Your task to perform on an android device: Open Reddit.com Image 0: 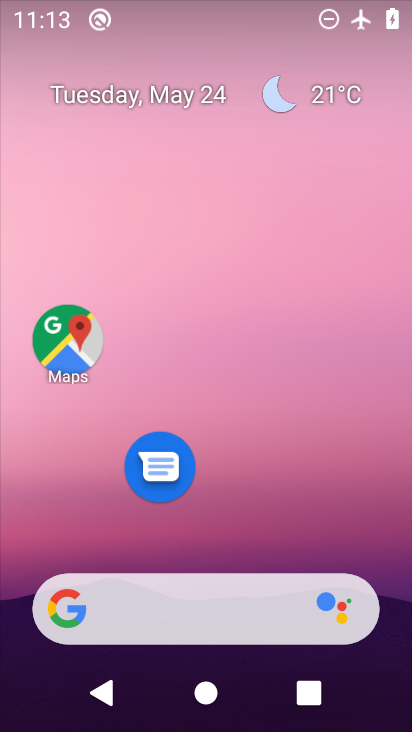
Step 0: click (305, 144)
Your task to perform on an android device: Open Reddit.com Image 1: 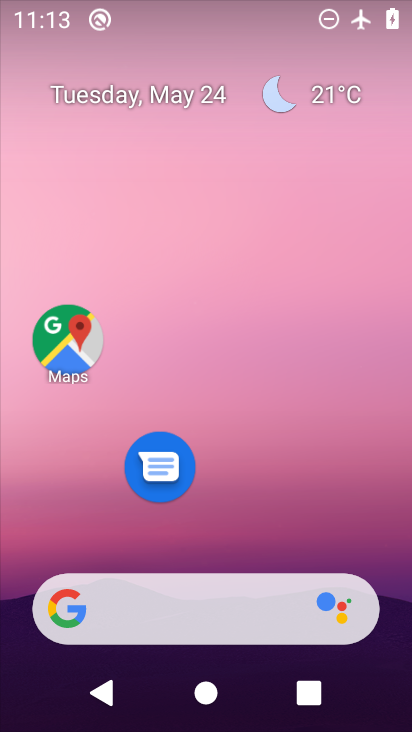
Step 1: click (171, 614)
Your task to perform on an android device: Open Reddit.com Image 2: 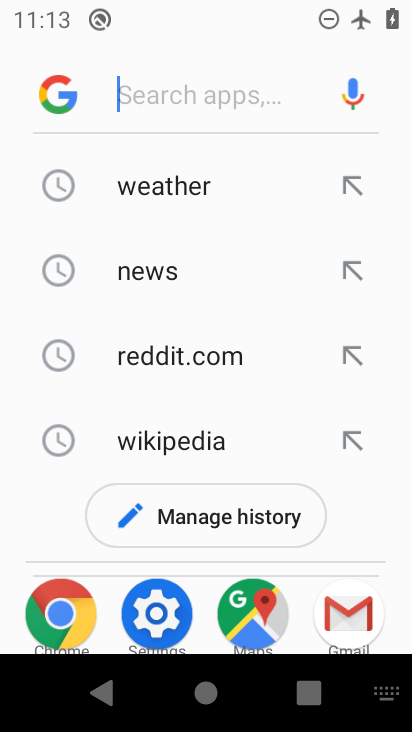
Step 2: click (164, 376)
Your task to perform on an android device: Open Reddit.com Image 3: 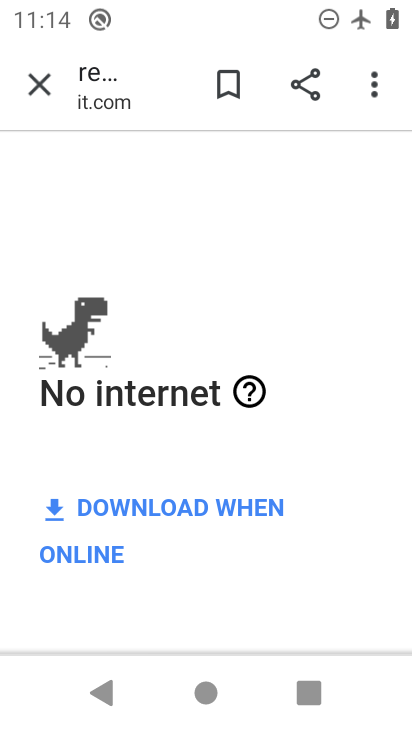
Step 3: task complete